Your task to perform on an android device: Go to Reddit.com Image 0: 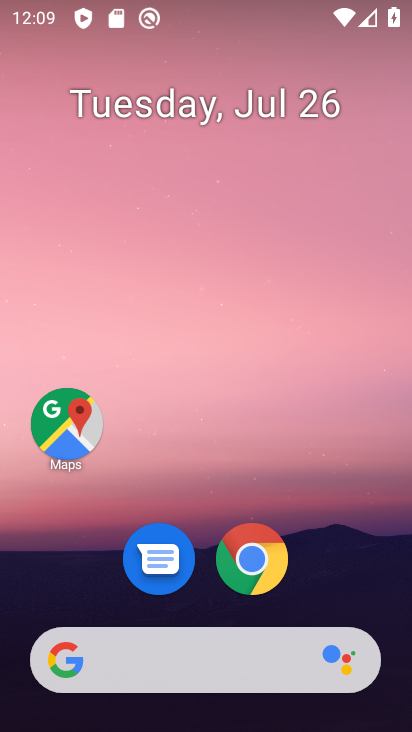
Step 0: click (262, 557)
Your task to perform on an android device: Go to Reddit.com Image 1: 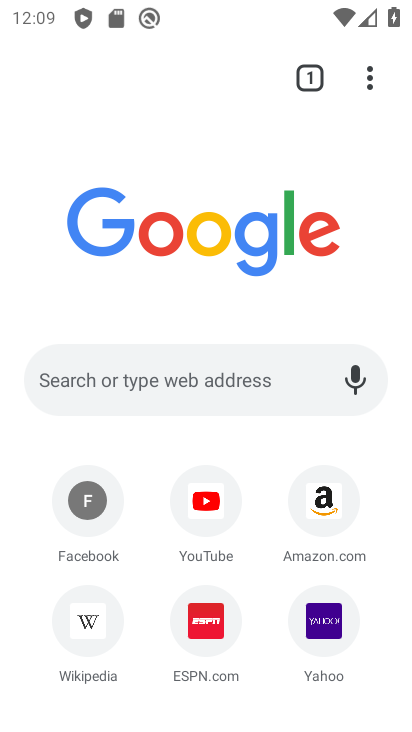
Step 1: click (171, 383)
Your task to perform on an android device: Go to Reddit.com Image 2: 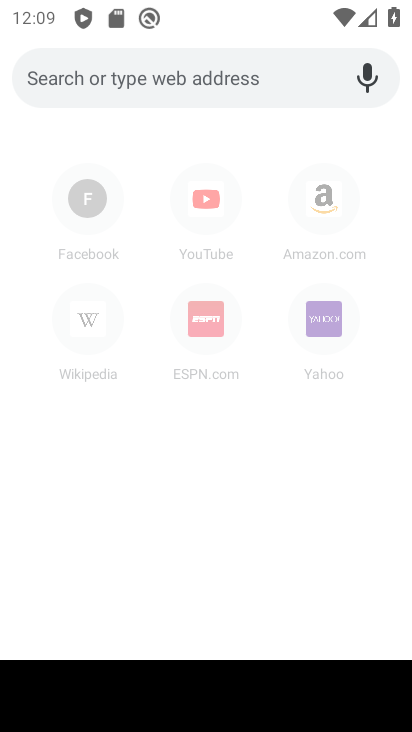
Step 2: type "reddit.com"
Your task to perform on an android device: Go to Reddit.com Image 3: 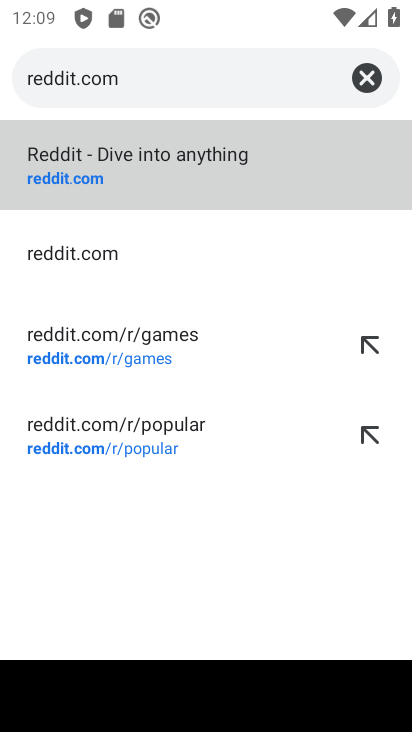
Step 3: click (172, 179)
Your task to perform on an android device: Go to Reddit.com Image 4: 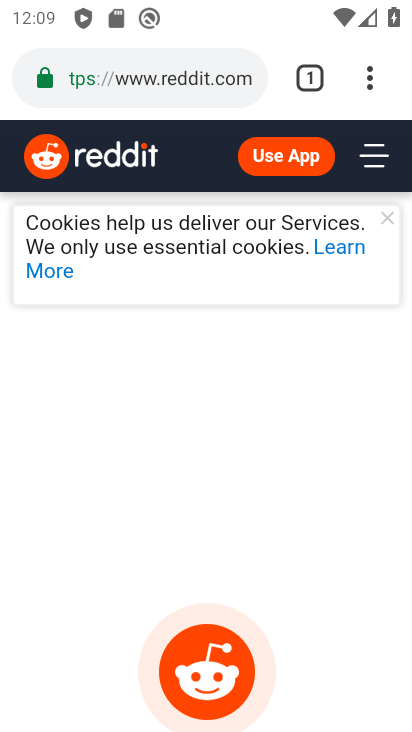
Step 4: task complete